Your task to perform on an android device: Open maps Image 0: 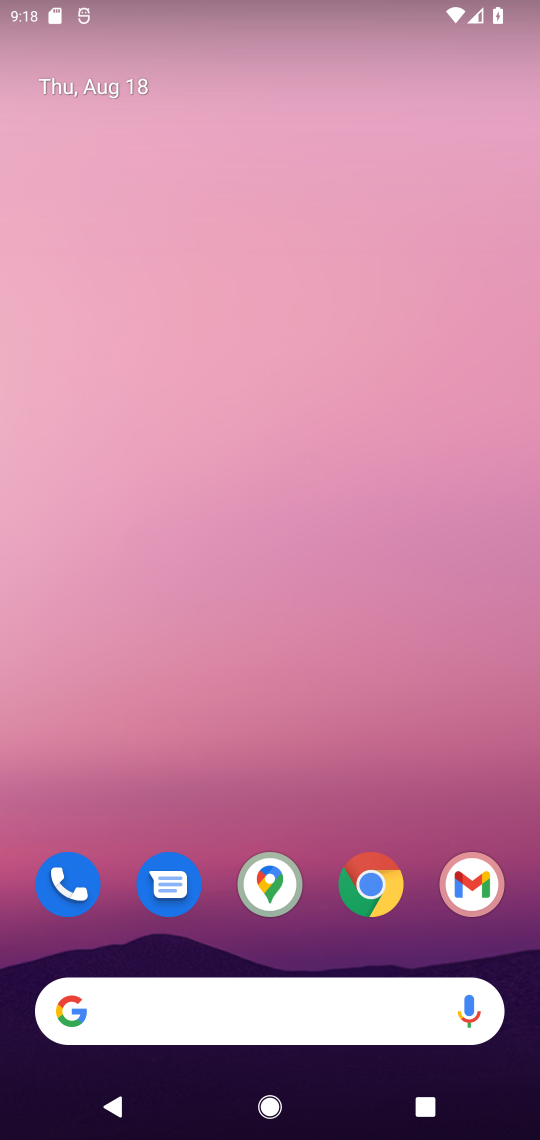
Step 0: click (270, 895)
Your task to perform on an android device: Open maps Image 1: 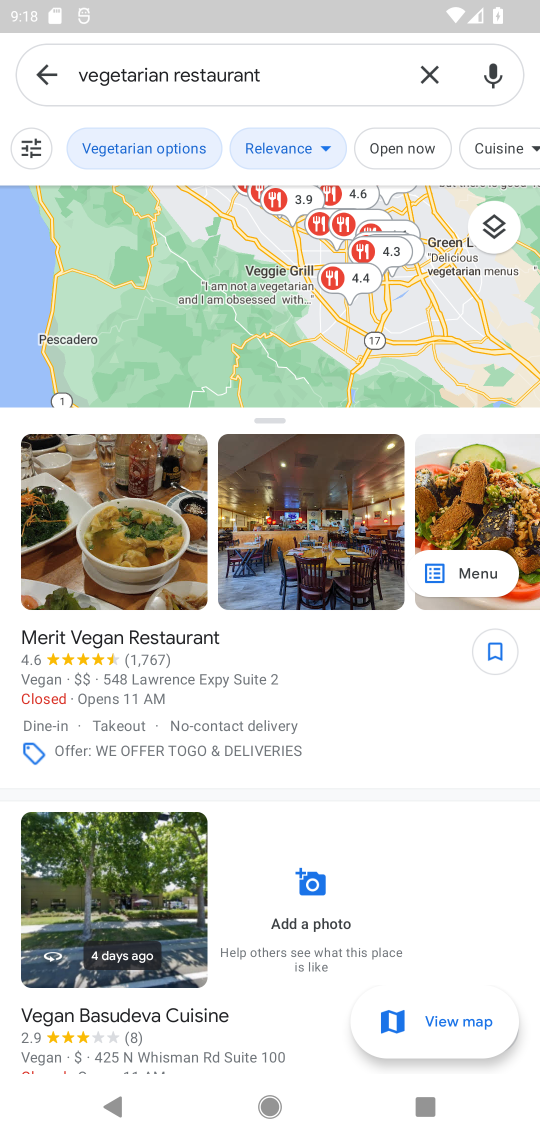
Step 1: task complete